Your task to perform on an android device: Search for sushi restaurants on Maps Image 0: 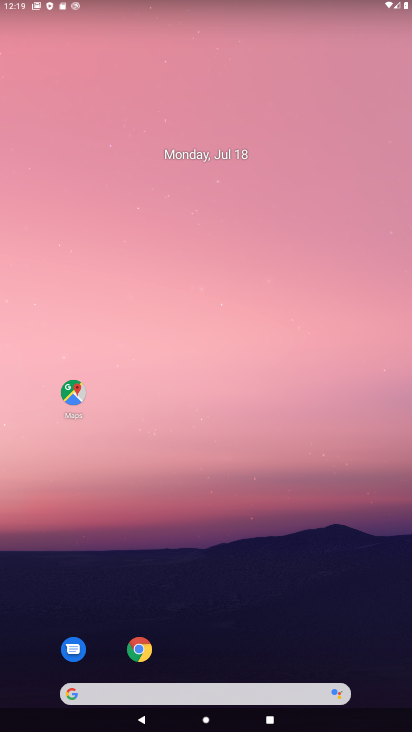
Step 0: click (74, 393)
Your task to perform on an android device: Search for sushi restaurants on Maps Image 1: 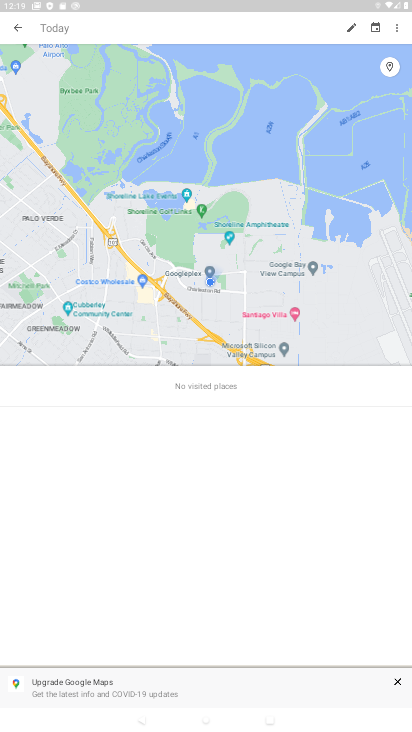
Step 1: press back button
Your task to perform on an android device: Search for sushi restaurants on Maps Image 2: 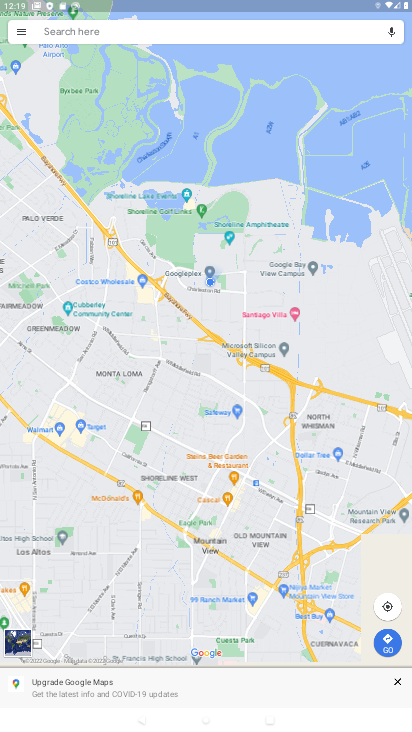
Step 2: click (101, 26)
Your task to perform on an android device: Search for sushi restaurants on Maps Image 3: 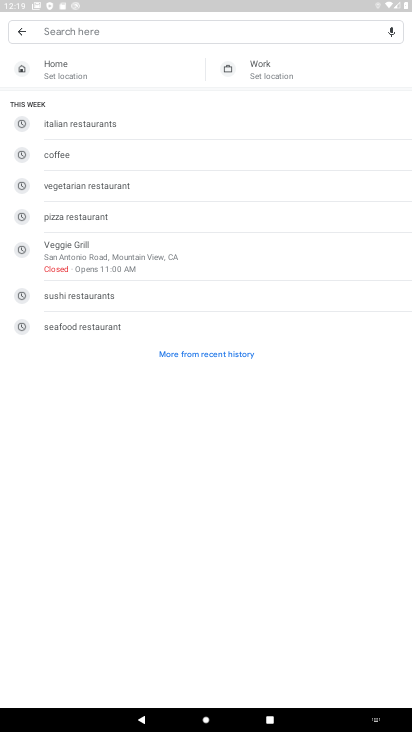
Step 3: type "sushi restaurants"
Your task to perform on an android device: Search for sushi restaurants on Maps Image 4: 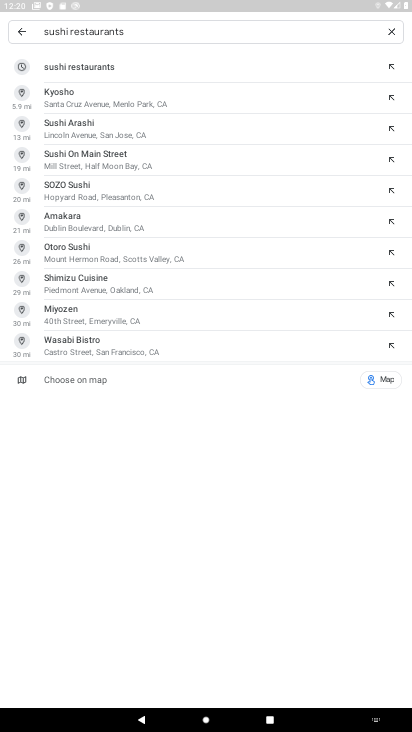
Step 4: click (83, 63)
Your task to perform on an android device: Search for sushi restaurants on Maps Image 5: 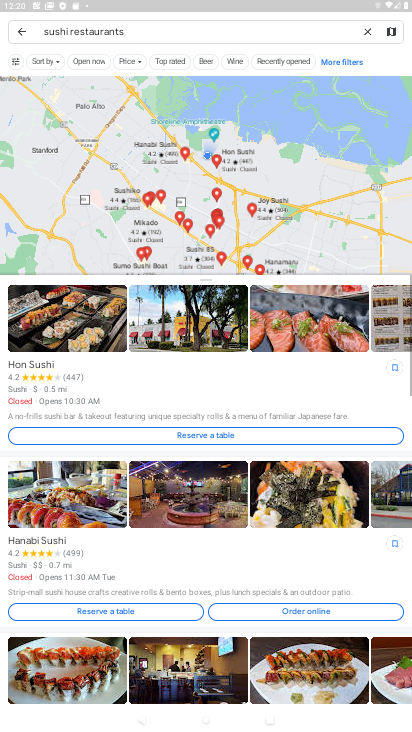
Step 5: task complete